Your task to perform on an android device: Go to Reddit.com Image 0: 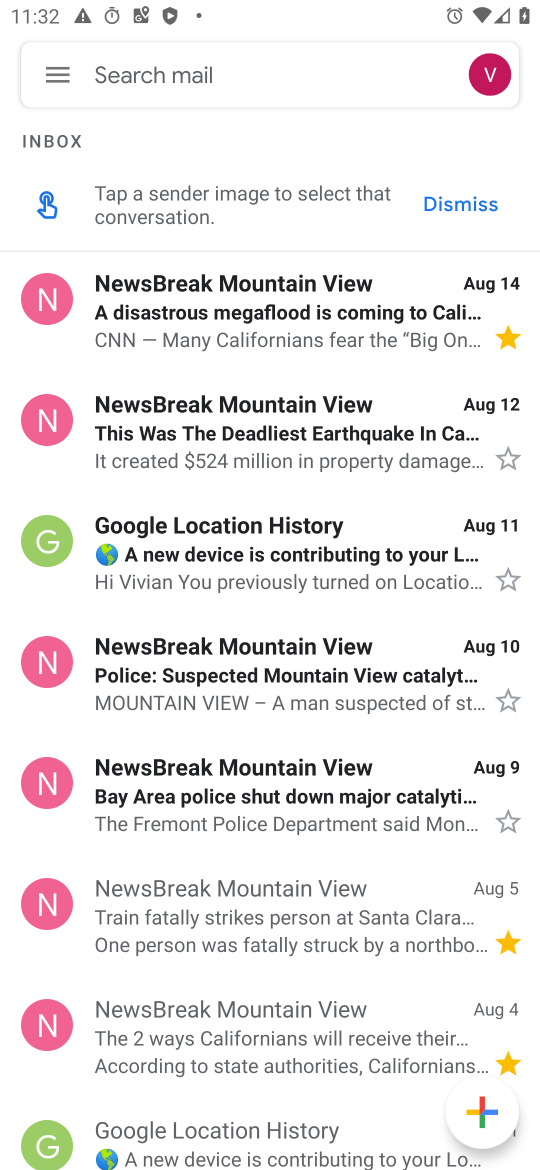
Step 0: press home button
Your task to perform on an android device: Go to Reddit.com Image 1: 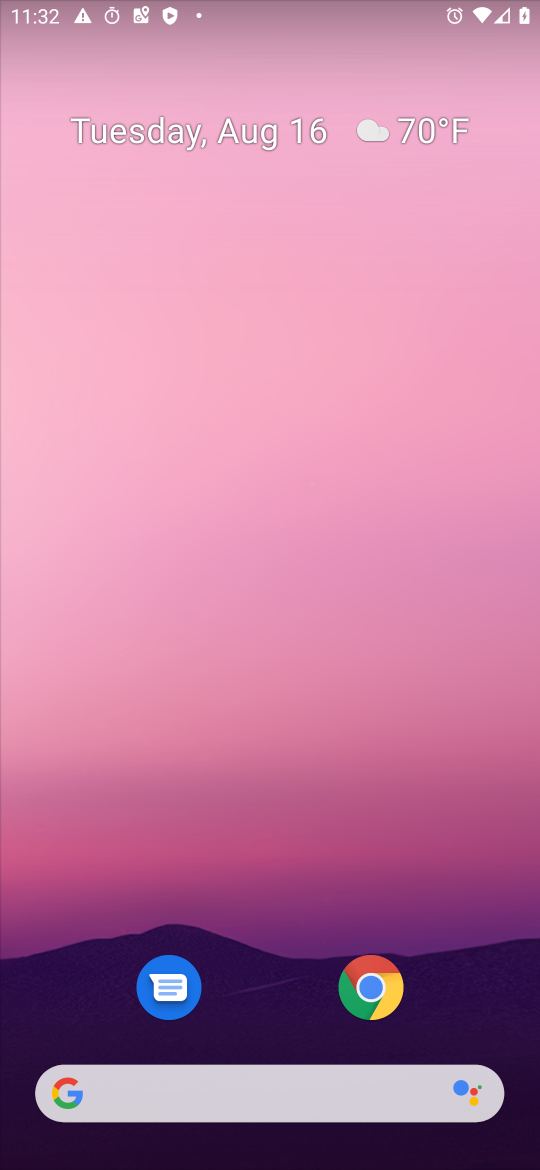
Step 1: click (130, 1093)
Your task to perform on an android device: Go to Reddit.com Image 2: 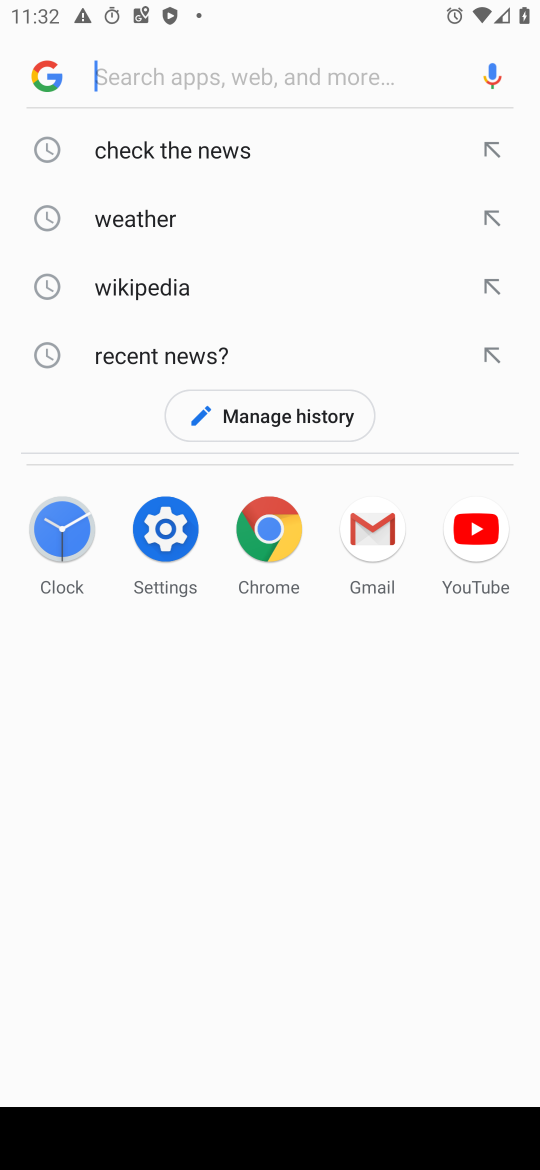
Step 2: type " Reddit.com"
Your task to perform on an android device: Go to Reddit.com Image 3: 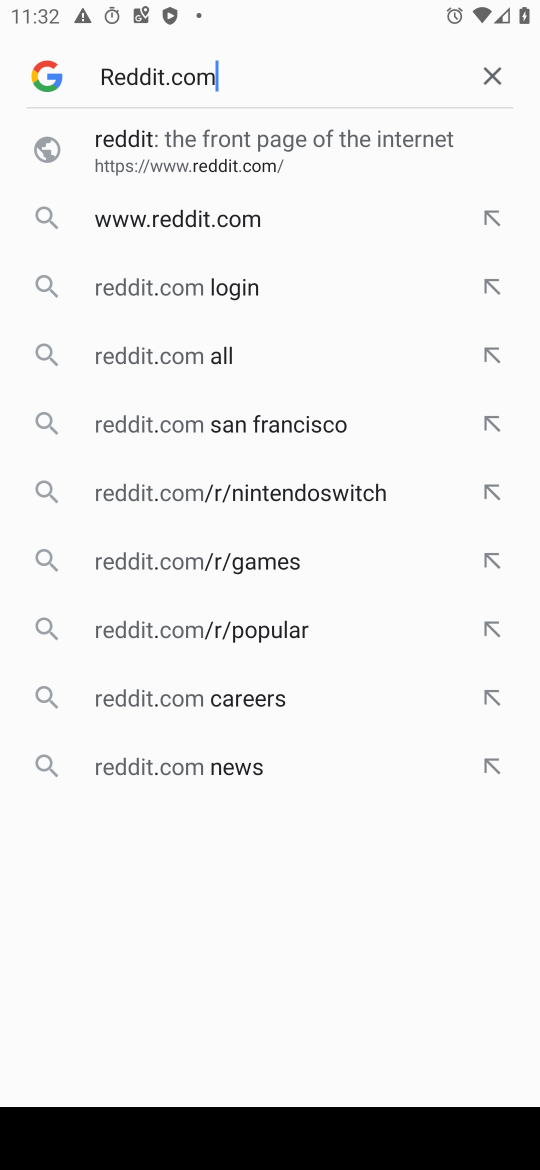
Step 3: type ""
Your task to perform on an android device: Go to Reddit.com Image 4: 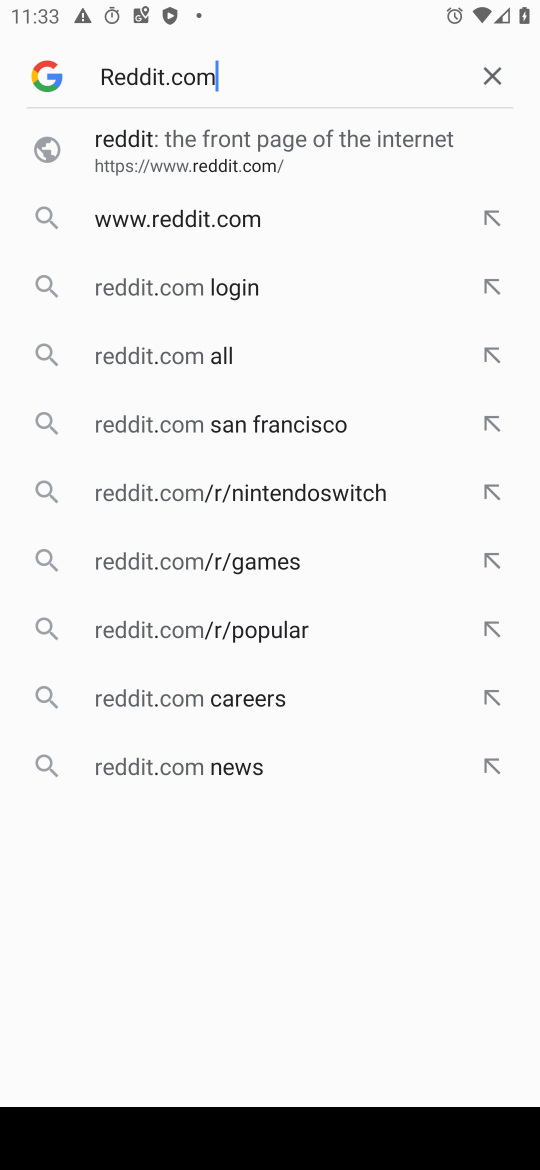
Step 4: task complete